Your task to perform on an android device: Open Chrome and go to settings Image 0: 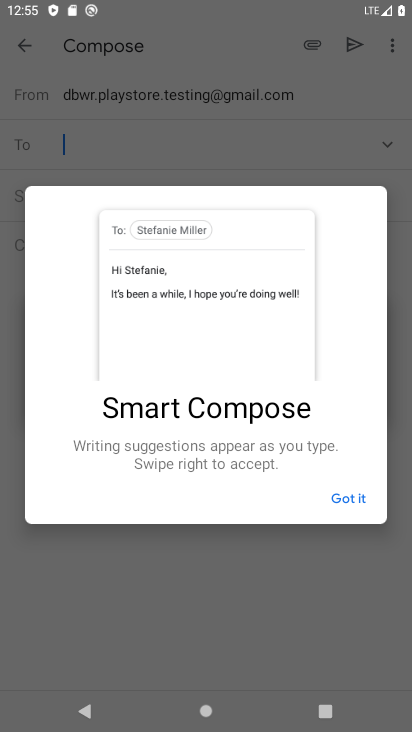
Step 0: press home button
Your task to perform on an android device: Open Chrome and go to settings Image 1: 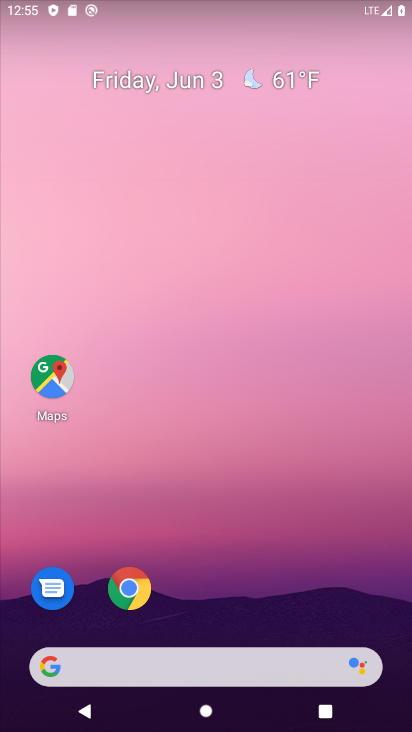
Step 1: click (128, 591)
Your task to perform on an android device: Open Chrome and go to settings Image 2: 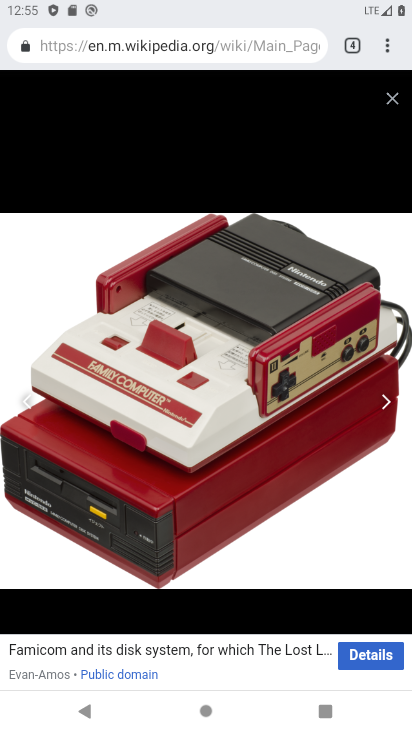
Step 2: click (388, 50)
Your task to perform on an android device: Open Chrome and go to settings Image 3: 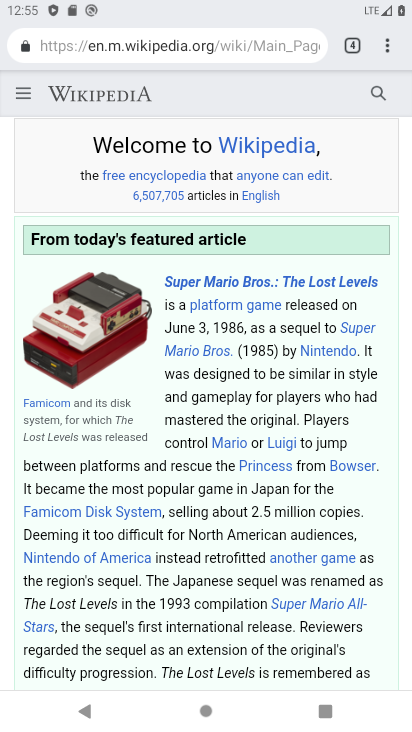
Step 3: click (401, 35)
Your task to perform on an android device: Open Chrome and go to settings Image 4: 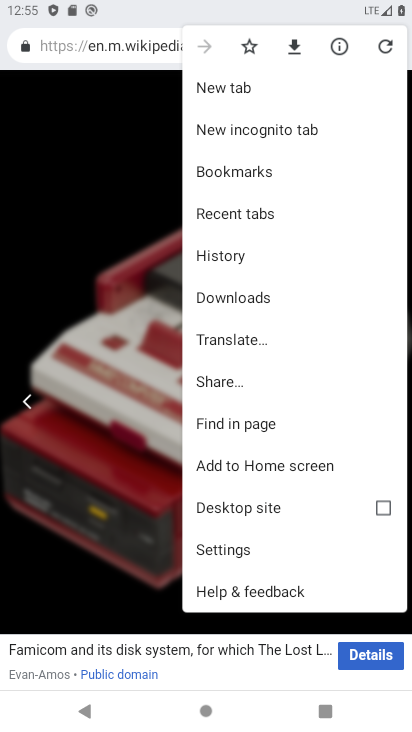
Step 4: click (211, 544)
Your task to perform on an android device: Open Chrome and go to settings Image 5: 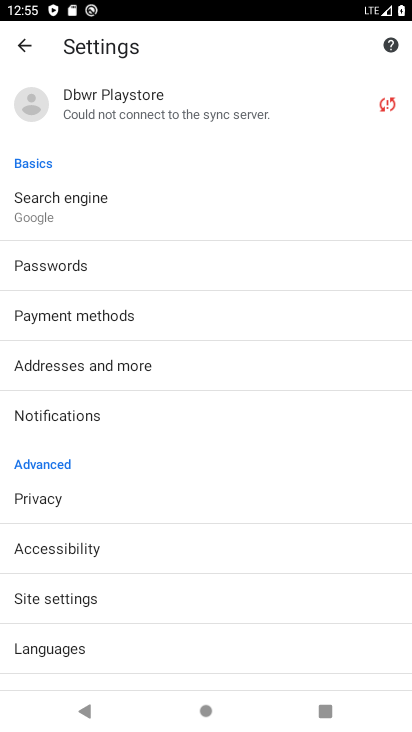
Step 5: task complete